Your task to perform on an android device: Search for a custom made wallet on Etsy Image 0: 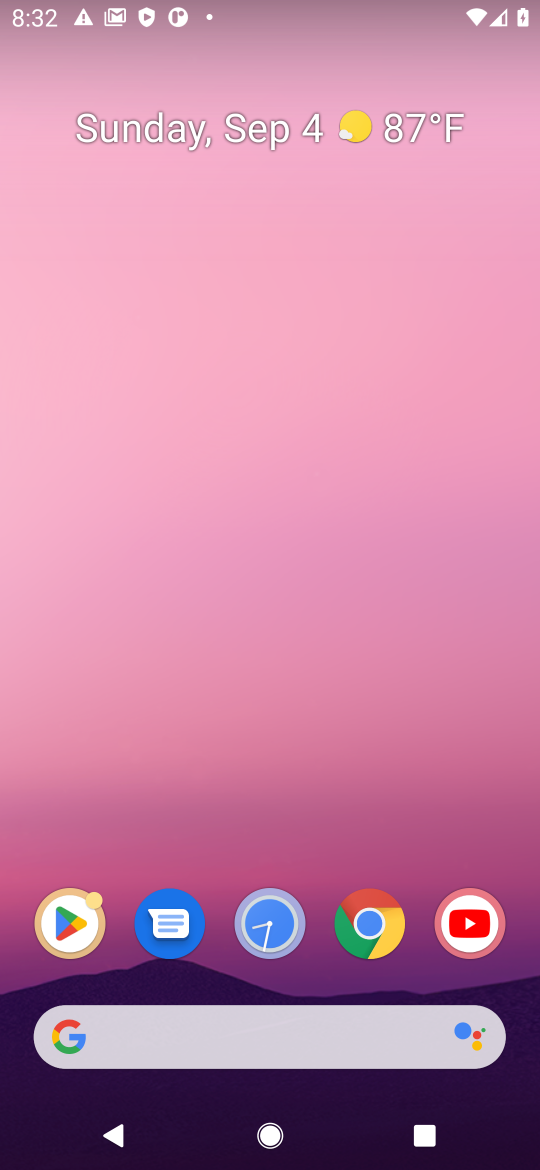
Step 0: press home button
Your task to perform on an android device: Search for a custom made wallet on Etsy Image 1: 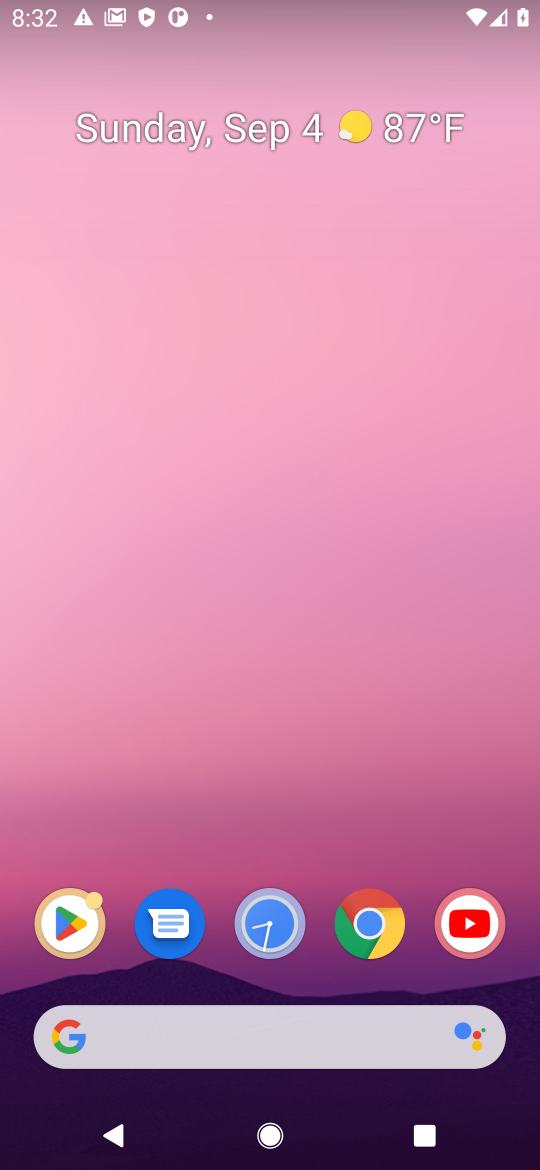
Step 1: click (399, 1036)
Your task to perform on an android device: Search for a custom made wallet on Etsy Image 2: 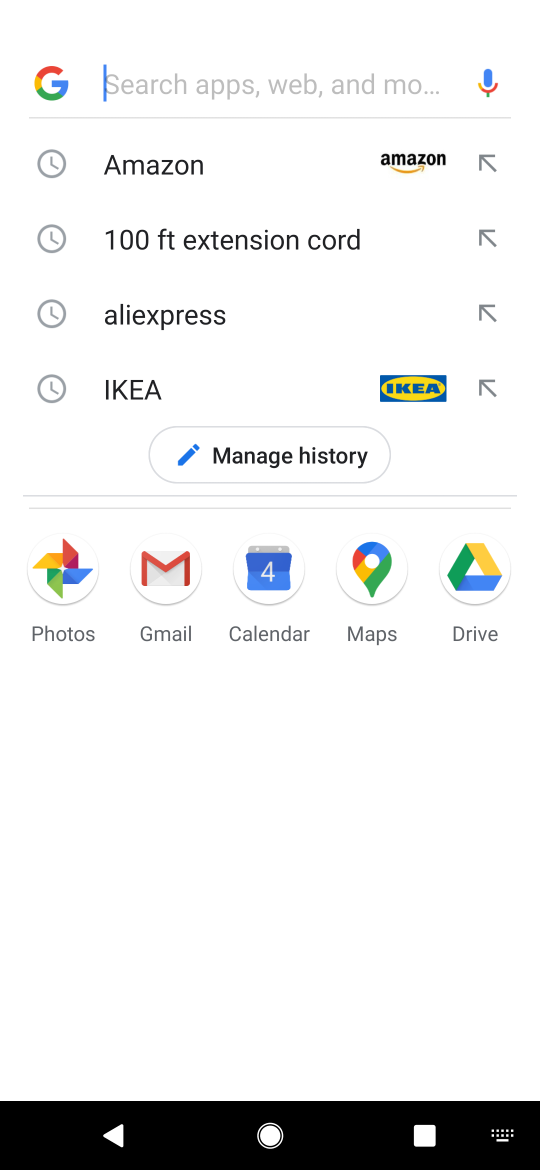
Step 2: press enter
Your task to perform on an android device: Search for a custom made wallet on Etsy Image 3: 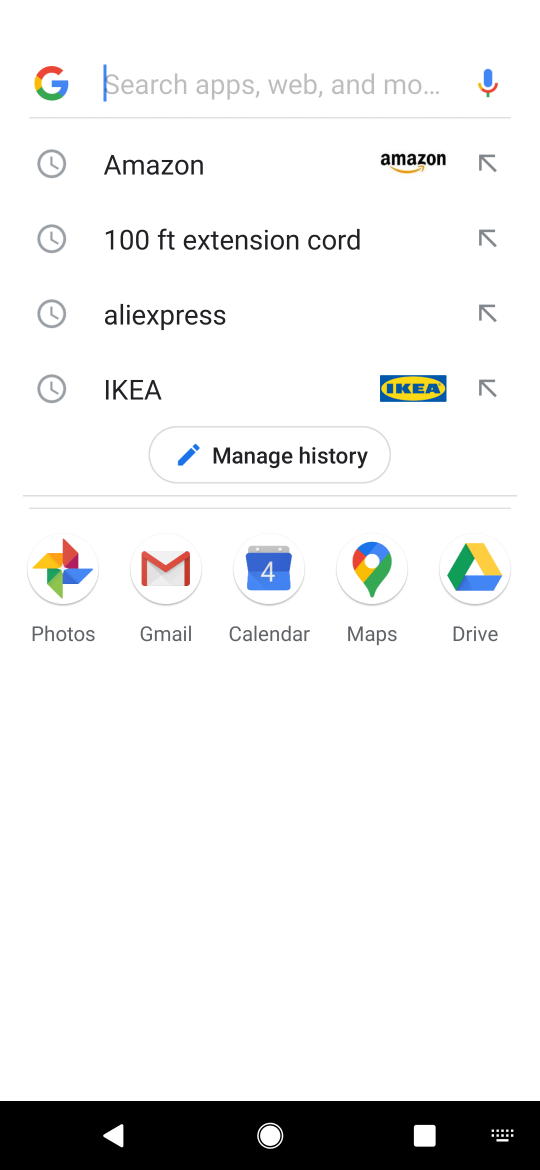
Step 3: type "etsy"
Your task to perform on an android device: Search for a custom made wallet on Etsy Image 4: 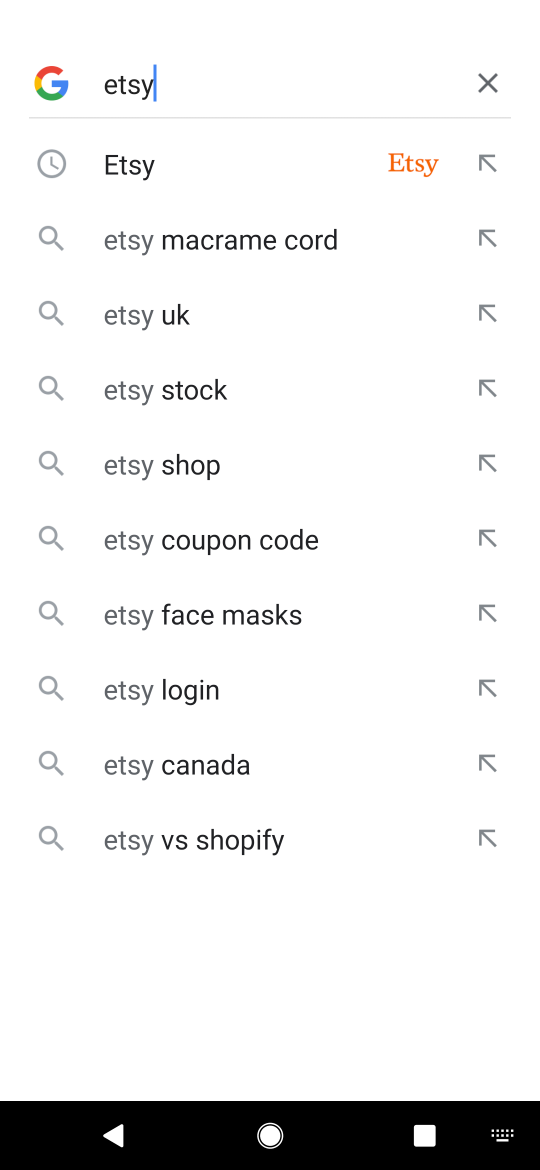
Step 4: click (241, 161)
Your task to perform on an android device: Search for a custom made wallet on Etsy Image 5: 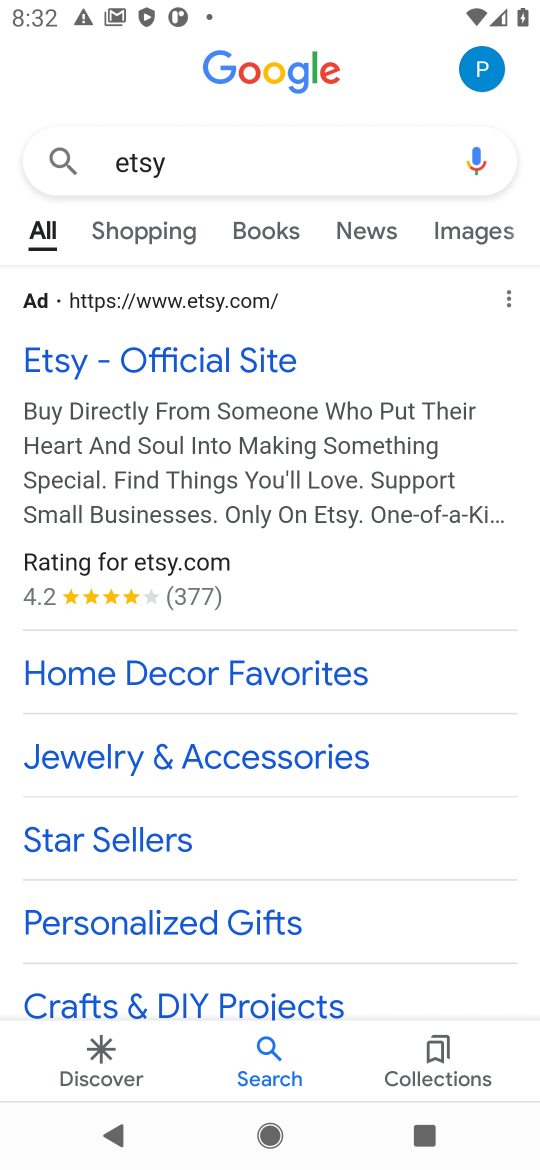
Step 5: click (251, 357)
Your task to perform on an android device: Search for a custom made wallet on Etsy Image 6: 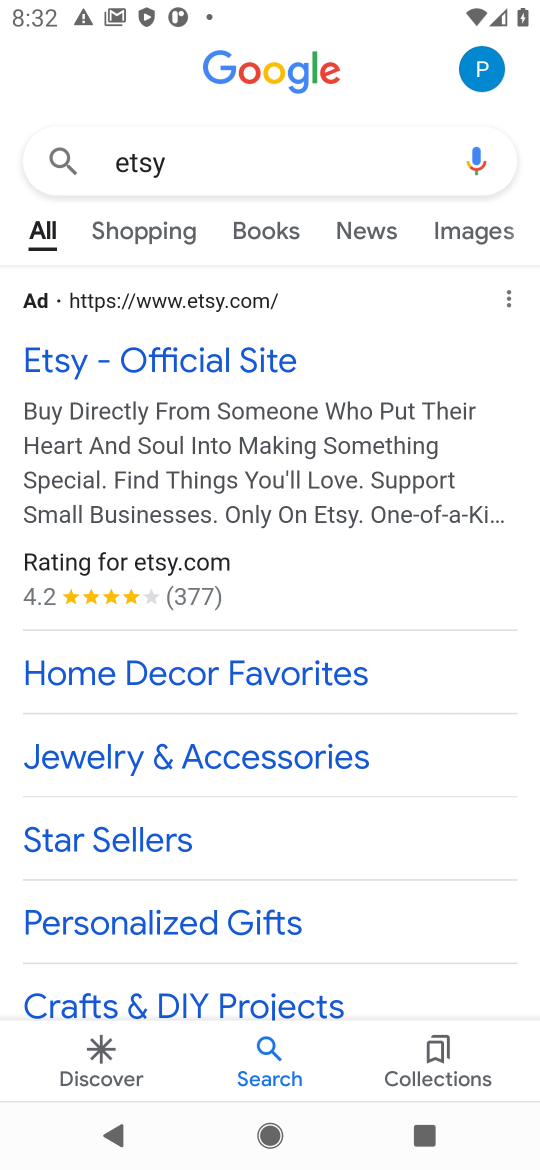
Step 6: click (204, 357)
Your task to perform on an android device: Search for a custom made wallet on Etsy Image 7: 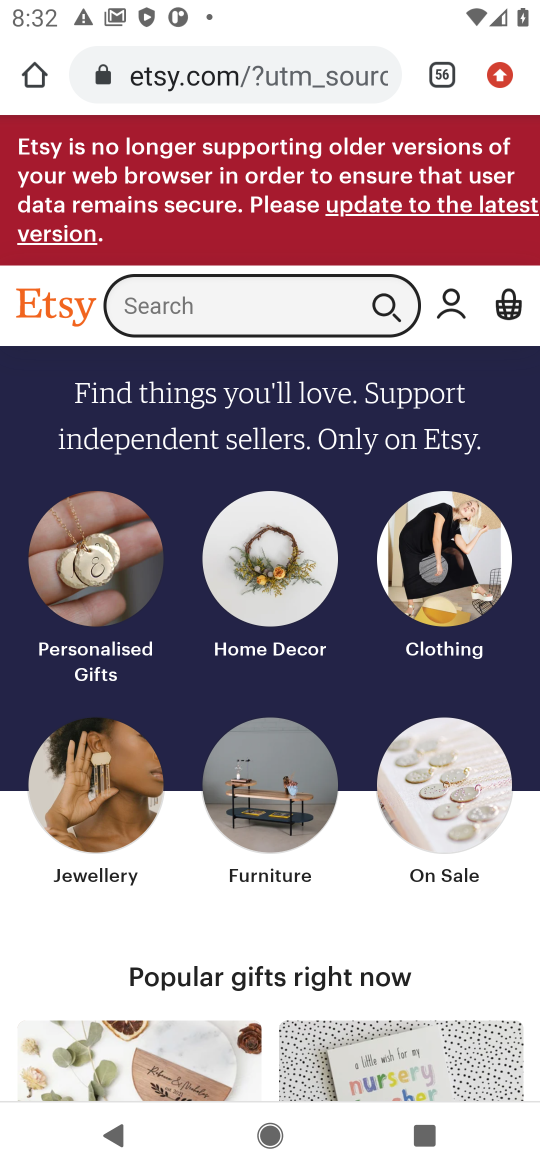
Step 7: click (239, 301)
Your task to perform on an android device: Search for a custom made wallet on Etsy Image 8: 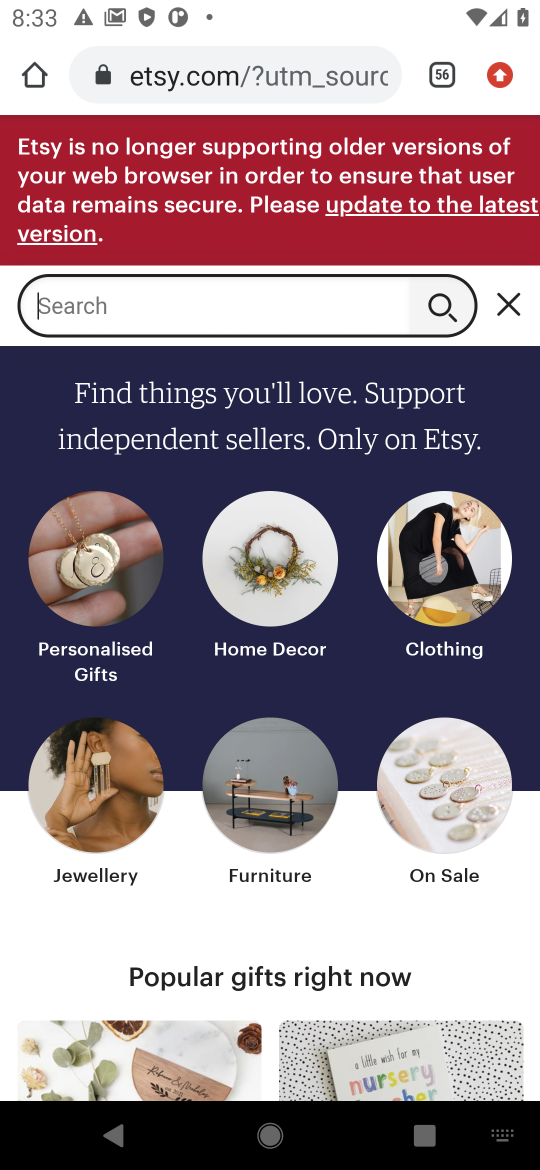
Step 8: type "custom made wallet"
Your task to perform on an android device: Search for a custom made wallet on Etsy Image 9: 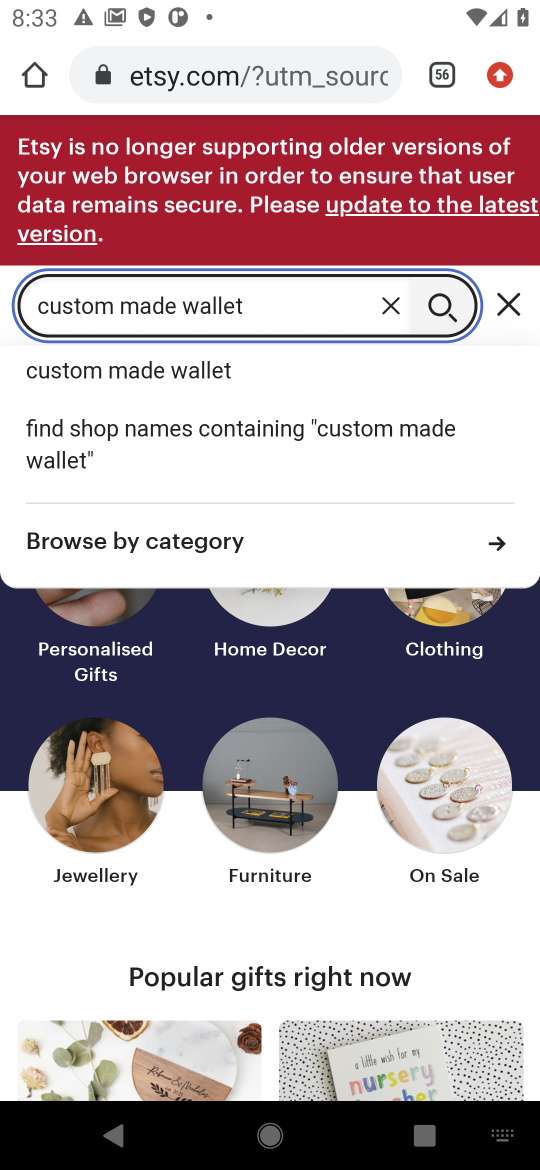
Step 9: click (449, 301)
Your task to perform on an android device: Search for a custom made wallet on Etsy Image 10: 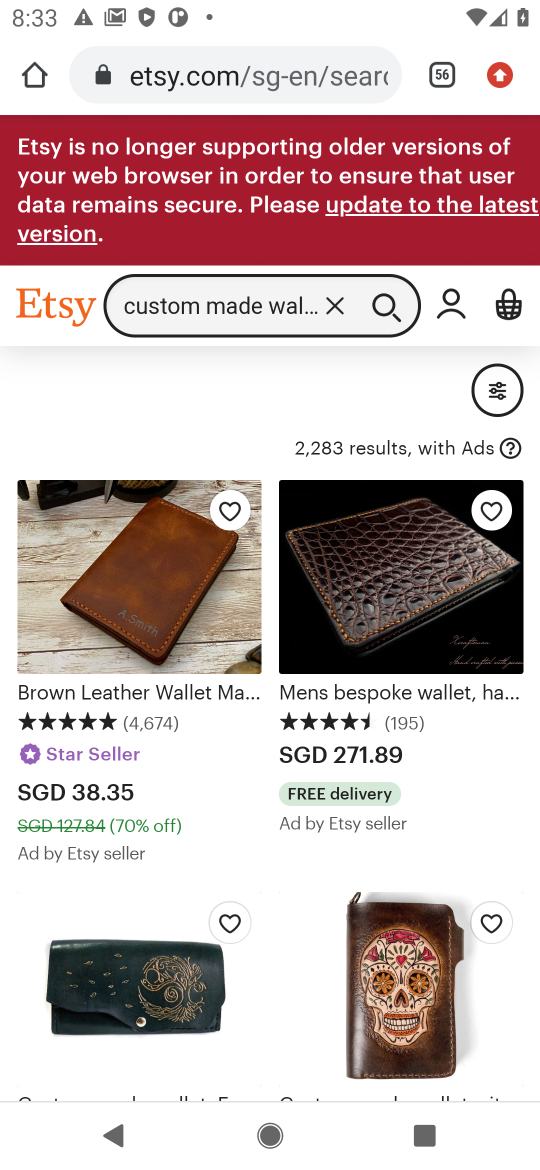
Step 10: task complete